Your task to perform on an android device: Open network settings Image 0: 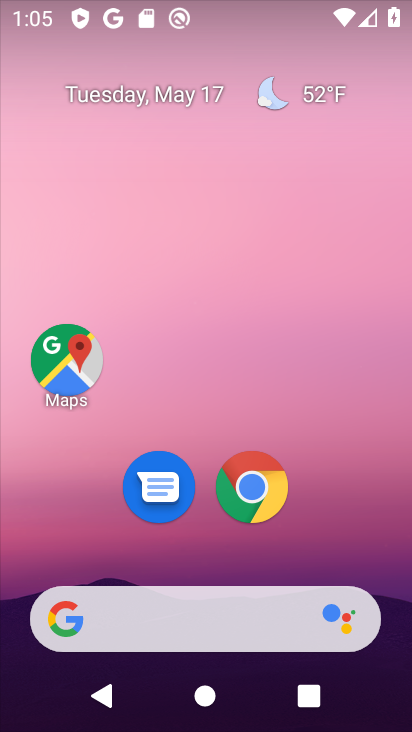
Step 0: drag from (369, 543) to (310, 35)
Your task to perform on an android device: Open network settings Image 1: 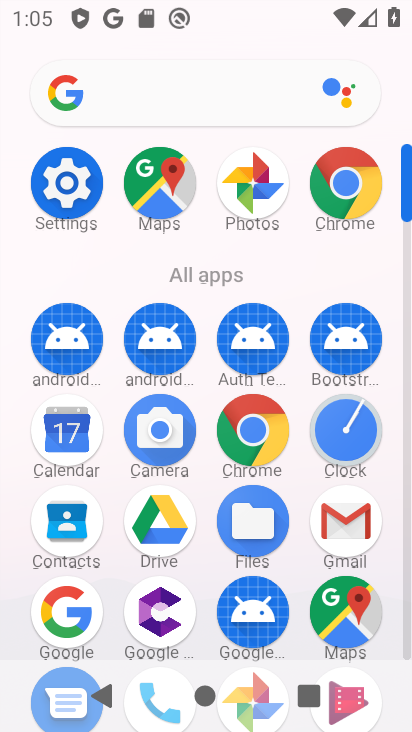
Step 1: click (68, 184)
Your task to perform on an android device: Open network settings Image 2: 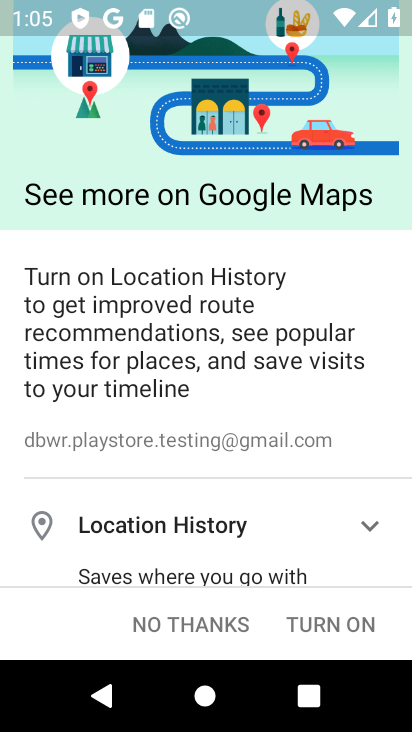
Step 2: press home button
Your task to perform on an android device: Open network settings Image 3: 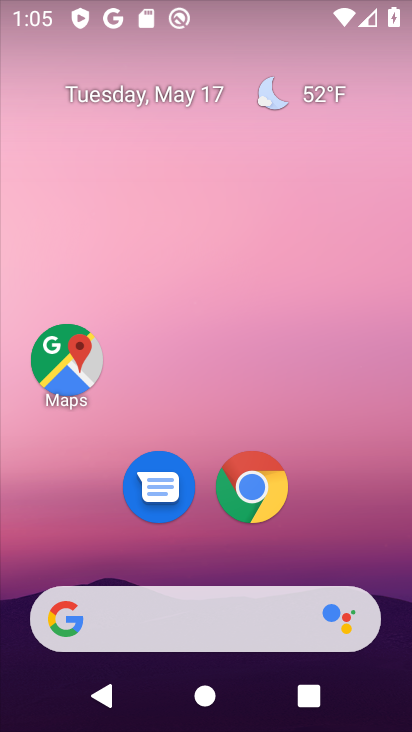
Step 3: drag from (289, 457) to (217, 6)
Your task to perform on an android device: Open network settings Image 4: 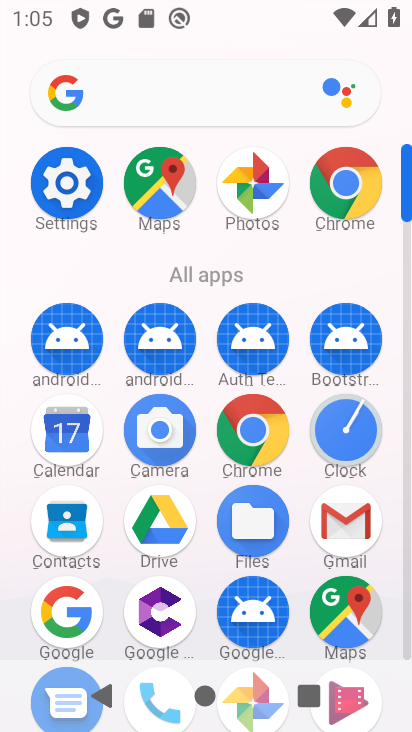
Step 4: click (63, 188)
Your task to perform on an android device: Open network settings Image 5: 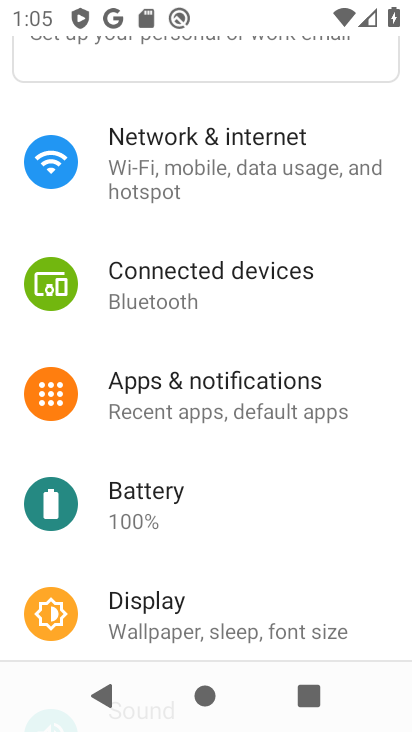
Step 5: drag from (176, 161) to (250, 419)
Your task to perform on an android device: Open network settings Image 6: 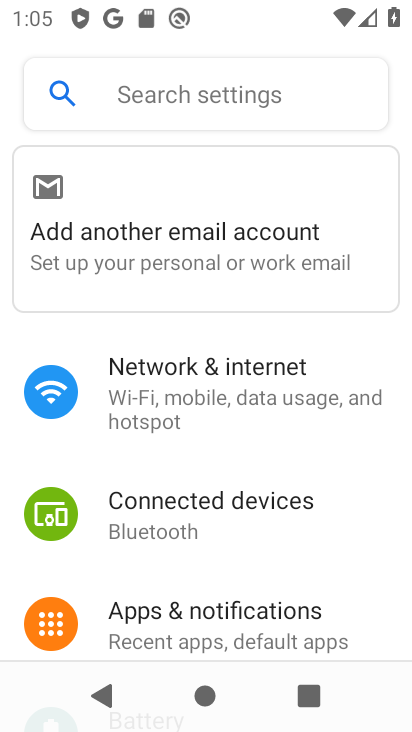
Step 6: click (191, 352)
Your task to perform on an android device: Open network settings Image 7: 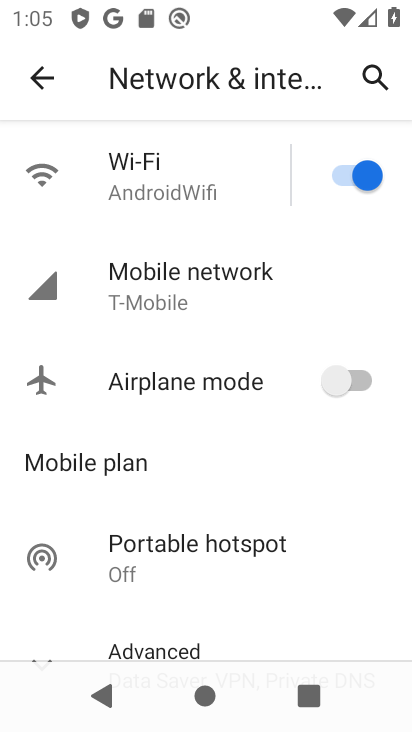
Step 7: task complete